Your task to perform on an android device: turn on priority inbox in the gmail app Image 0: 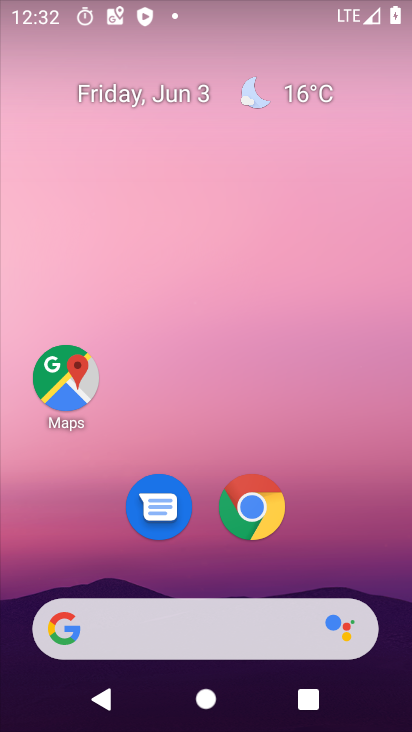
Step 0: drag from (357, 591) to (261, 23)
Your task to perform on an android device: turn on priority inbox in the gmail app Image 1: 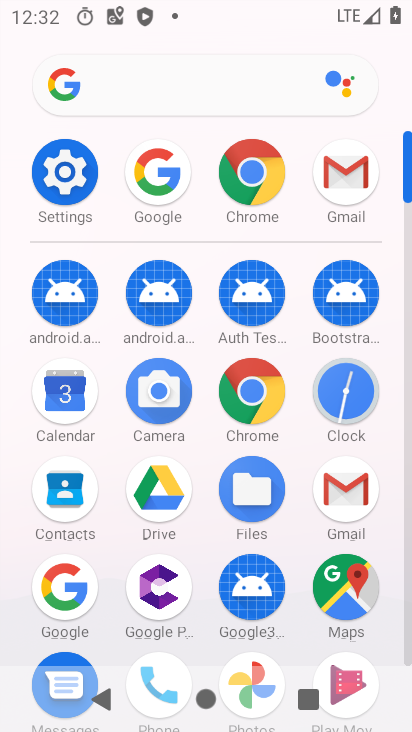
Step 1: click (369, 476)
Your task to perform on an android device: turn on priority inbox in the gmail app Image 2: 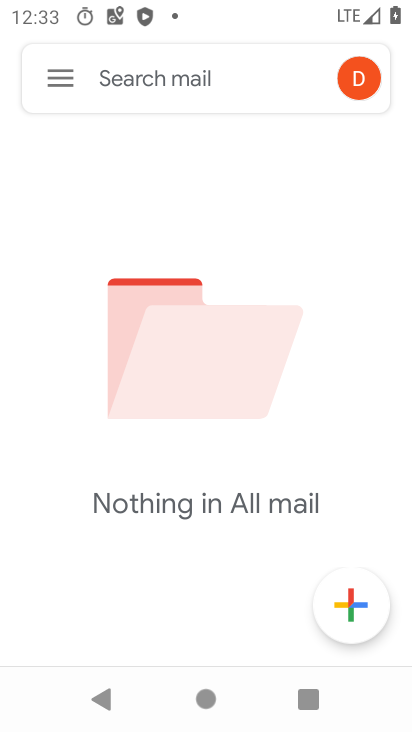
Step 2: click (57, 94)
Your task to perform on an android device: turn on priority inbox in the gmail app Image 3: 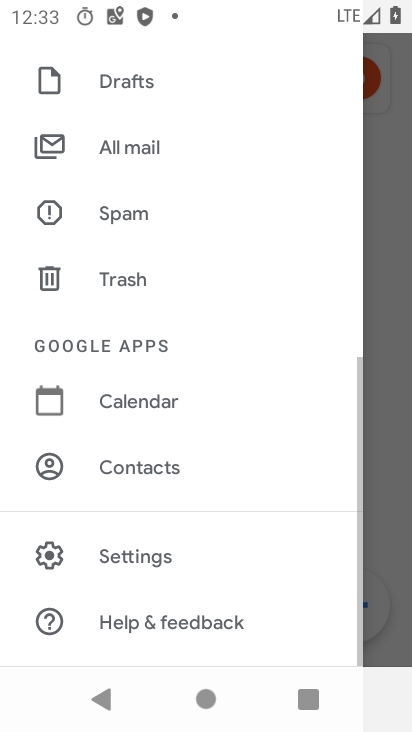
Step 3: click (209, 575)
Your task to perform on an android device: turn on priority inbox in the gmail app Image 4: 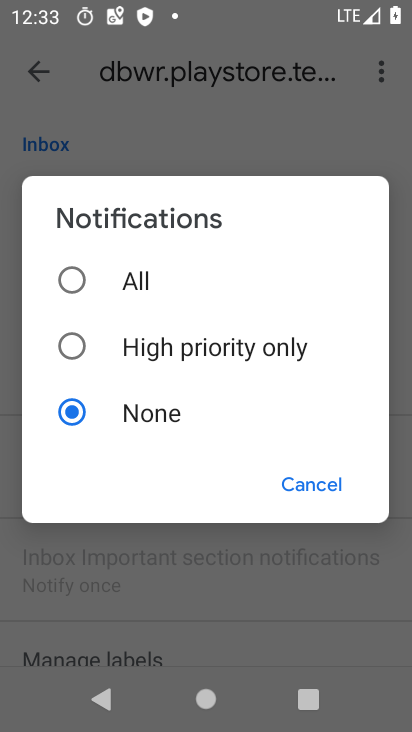
Step 4: click (313, 483)
Your task to perform on an android device: turn on priority inbox in the gmail app Image 5: 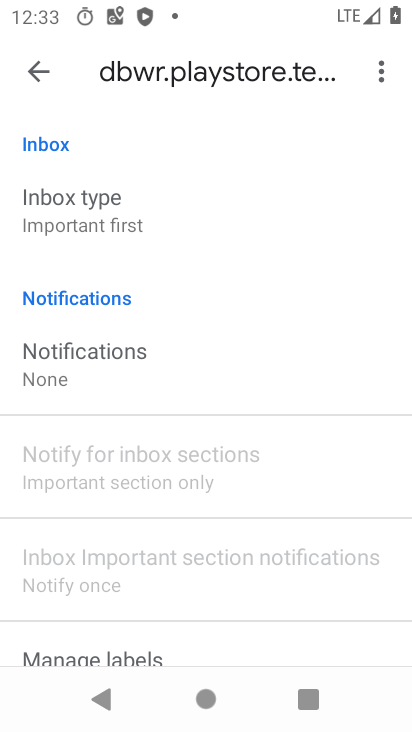
Step 5: click (114, 216)
Your task to perform on an android device: turn on priority inbox in the gmail app Image 6: 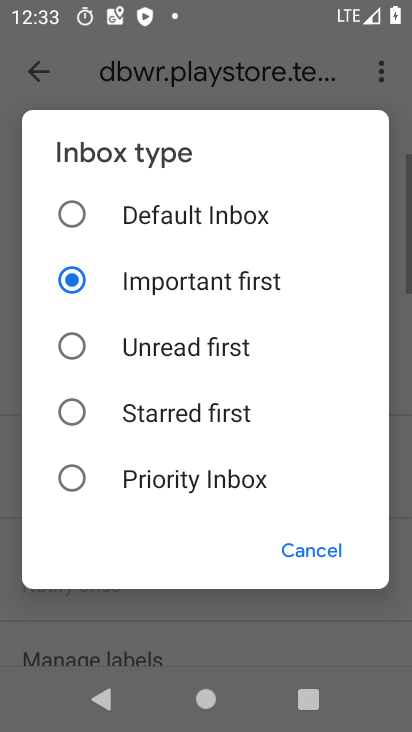
Step 6: click (68, 470)
Your task to perform on an android device: turn on priority inbox in the gmail app Image 7: 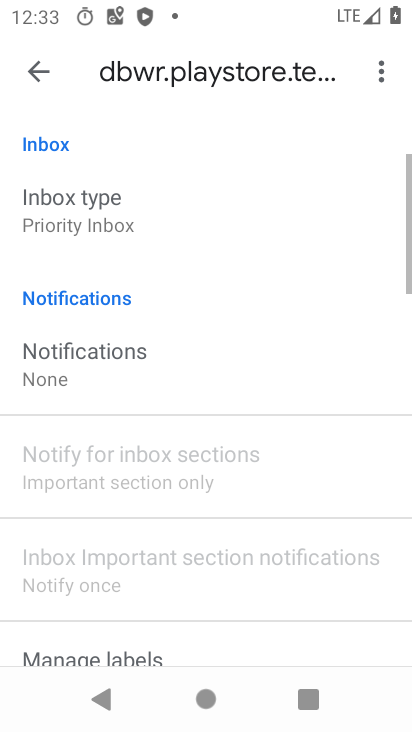
Step 7: task complete